Your task to perform on an android device: turn off sleep mode Image 0: 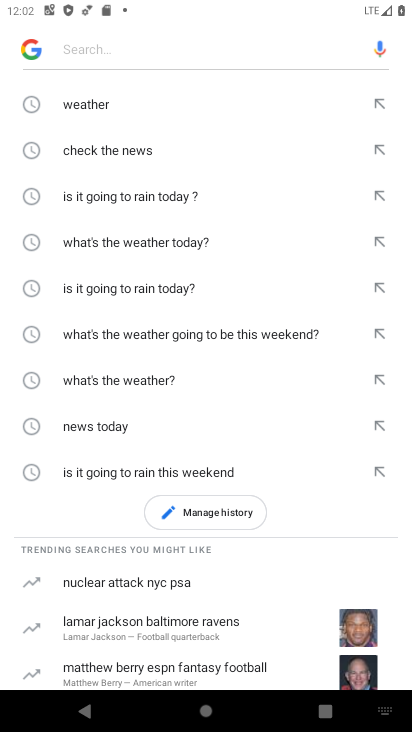
Step 0: press home button
Your task to perform on an android device: turn off sleep mode Image 1: 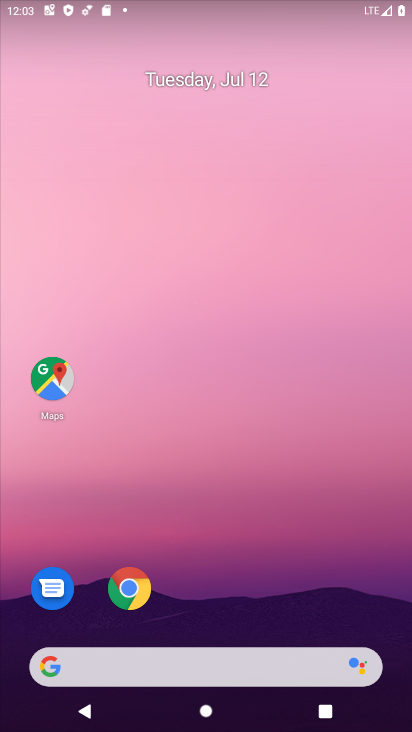
Step 1: drag from (321, 608) to (234, 211)
Your task to perform on an android device: turn off sleep mode Image 2: 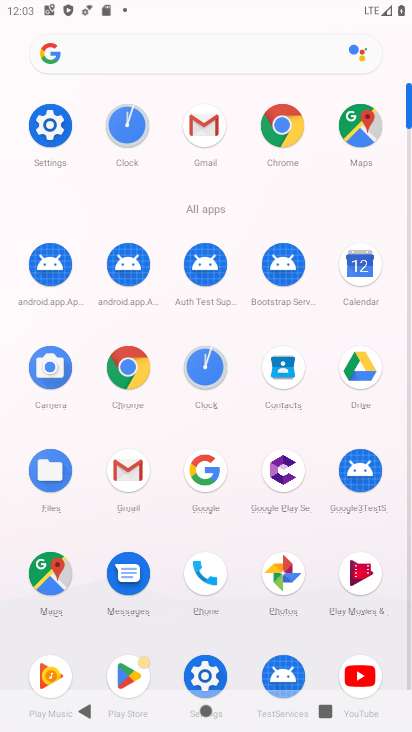
Step 2: click (64, 119)
Your task to perform on an android device: turn off sleep mode Image 3: 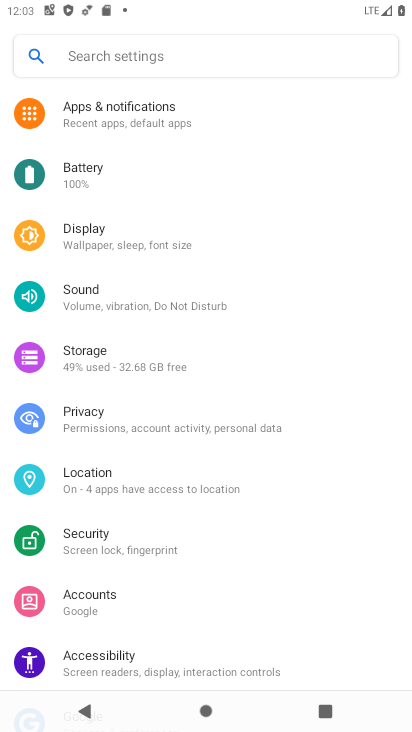
Step 3: click (132, 236)
Your task to perform on an android device: turn off sleep mode Image 4: 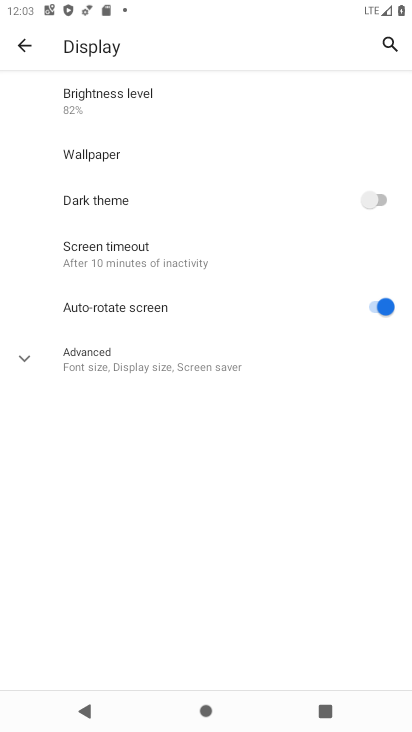
Step 4: click (123, 258)
Your task to perform on an android device: turn off sleep mode Image 5: 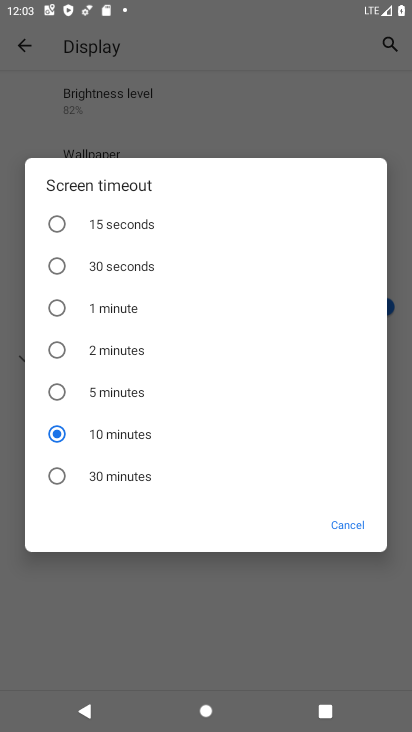
Step 5: task complete